Your task to perform on an android device: Show me the alarms in the clock app Image 0: 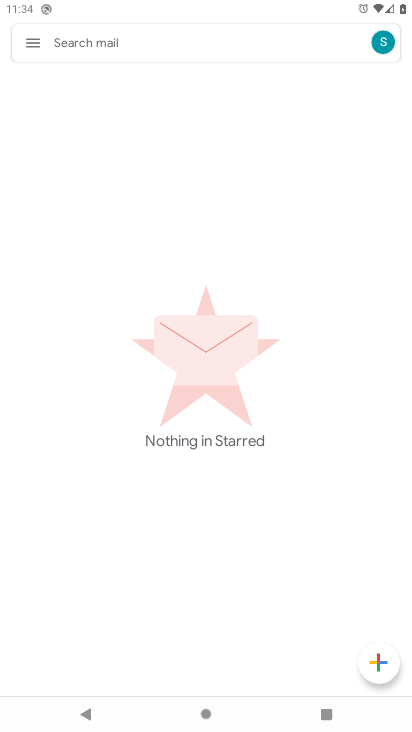
Step 0: press home button
Your task to perform on an android device: Show me the alarms in the clock app Image 1: 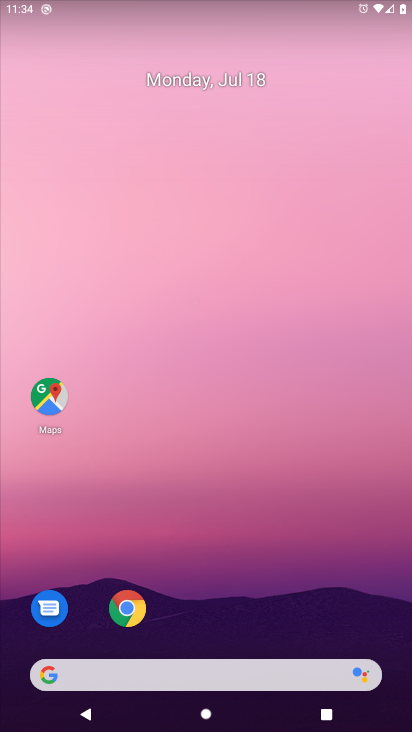
Step 1: drag from (26, 700) to (182, 355)
Your task to perform on an android device: Show me the alarms in the clock app Image 2: 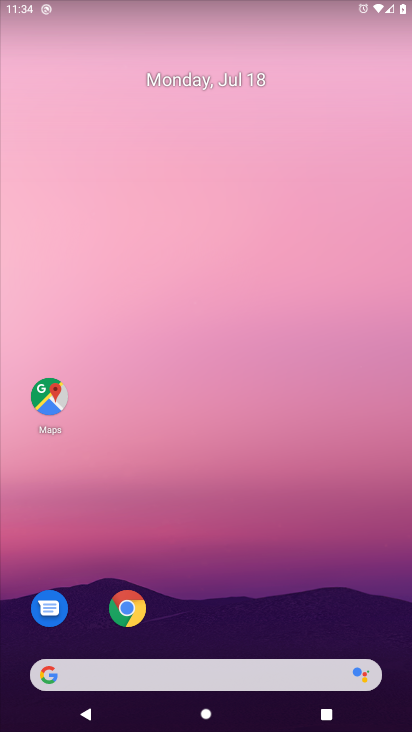
Step 2: drag from (32, 694) to (248, 26)
Your task to perform on an android device: Show me the alarms in the clock app Image 3: 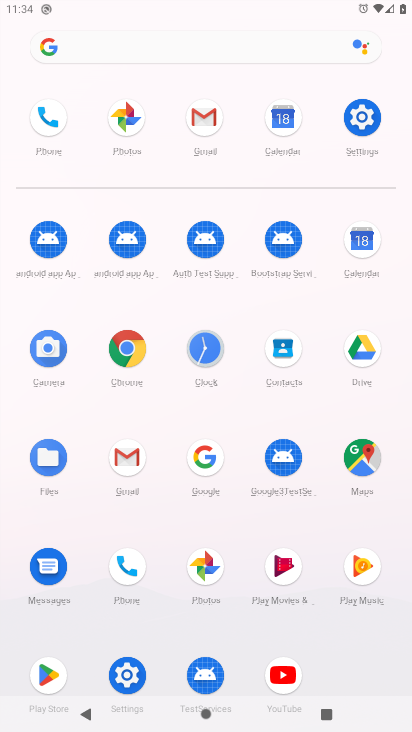
Step 3: click (196, 341)
Your task to perform on an android device: Show me the alarms in the clock app Image 4: 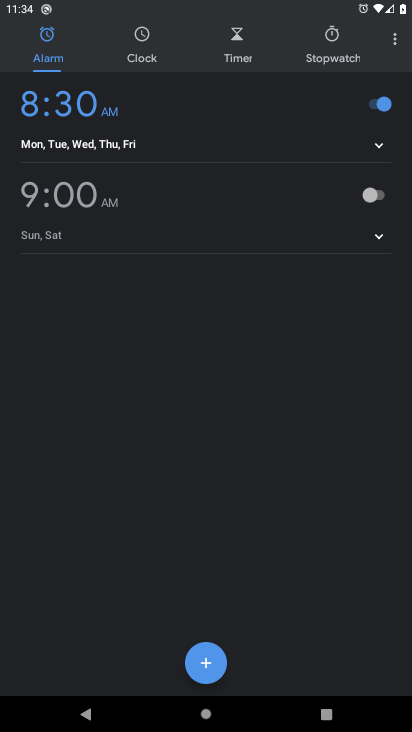
Step 4: click (142, 40)
Your task to perform on an android device: Show me the alarms in the clock app Image 5: 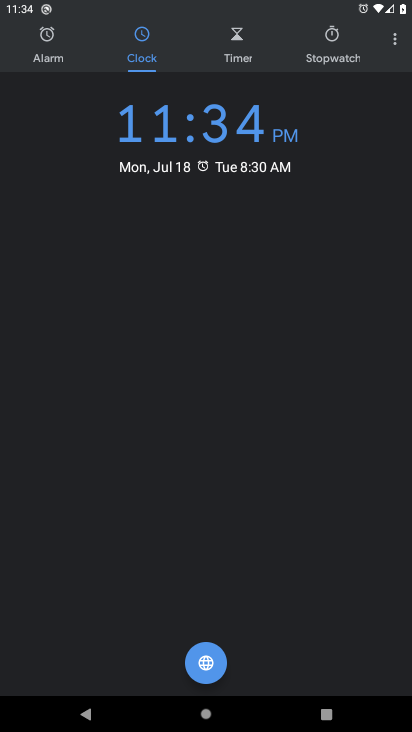
Step 5: task complete